Your task to perform on an android device: Open Chrome and go to the settings page Image 0: 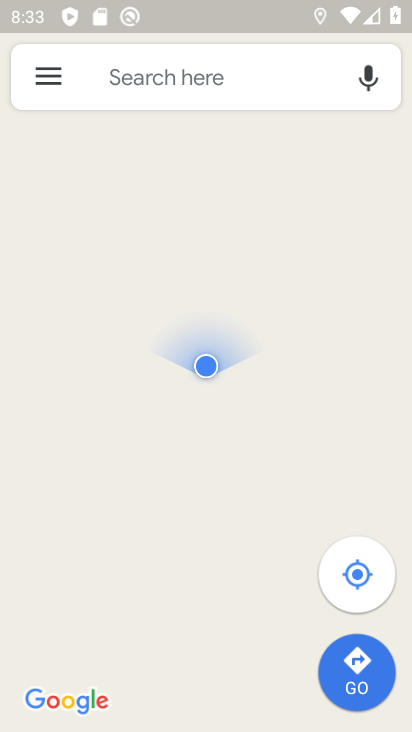
Step 0: press home button
Your task to perform on an android device: Open Chrome and go to the settings page Image 1: 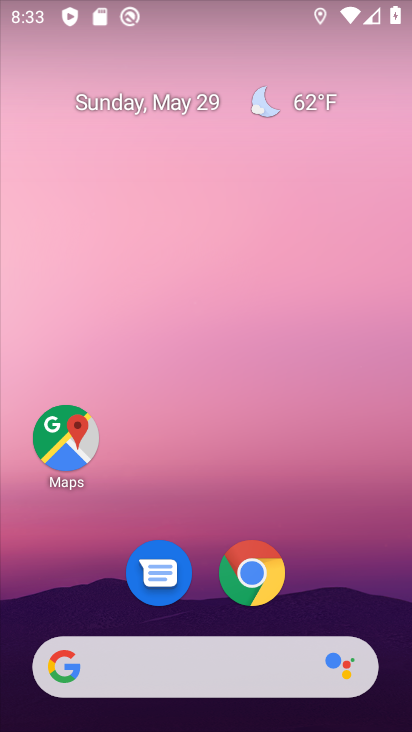
Step 1: click (249, 573)
Your task to perform on an android device: Open Chrome and go to the settings page Image 2: 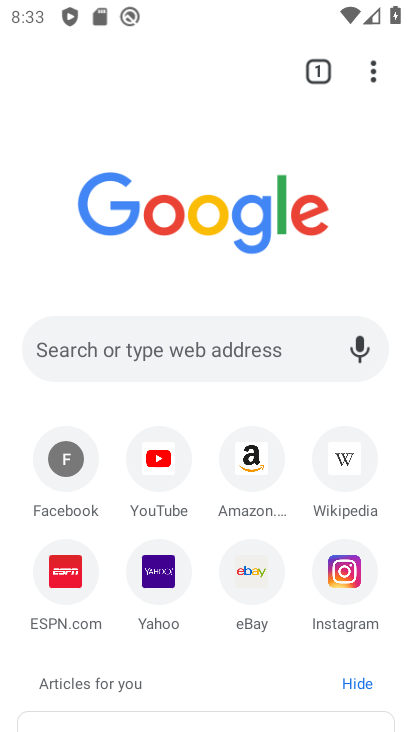
Step 2: click (373, 65)
Your task to perform on an android device: Open Chrome and go to the settings page Image 3: 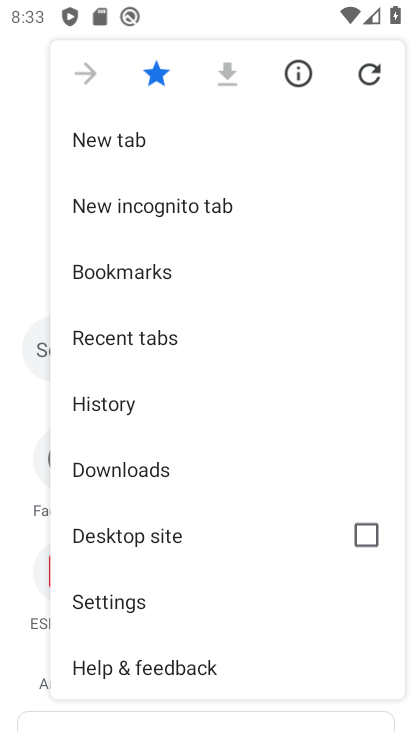
Step 3: click (124, 608)
Your task to perform on an android device: Open Chrome and go to the settings page Image 4: 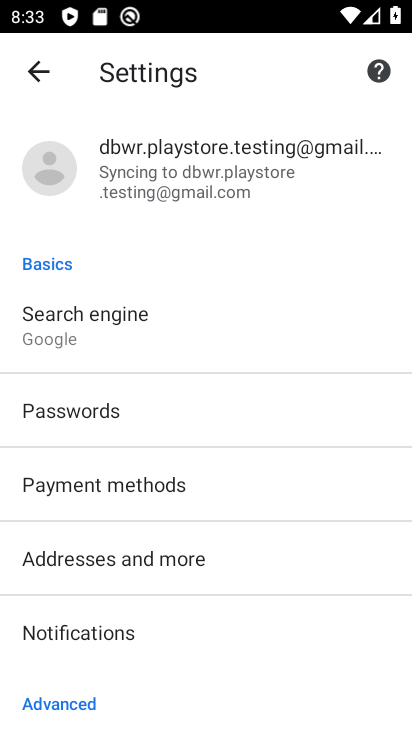
Step 4: task complete